Your task to perform on an android device: turn off location Image 0: 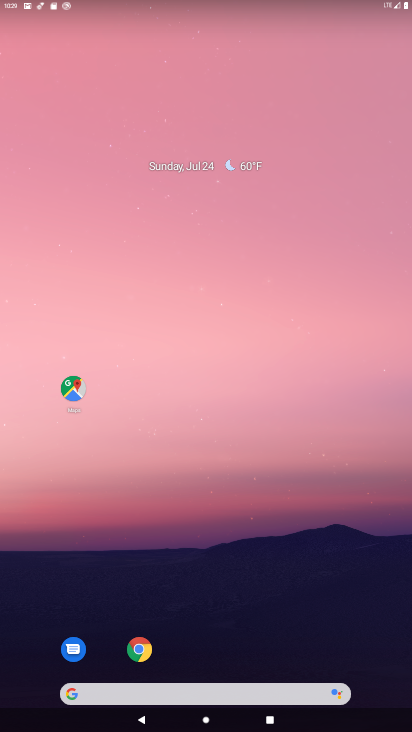
Step 0: drag from (213, 653) to (159, 84)
Your task to perform on an android device: turn off location Image 1: 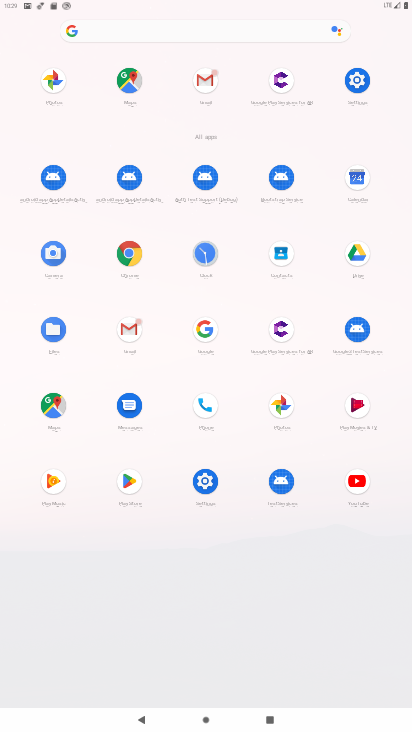
Step 1: click (364, 85)
Your task to perform on an android device: turn off location Image 2: 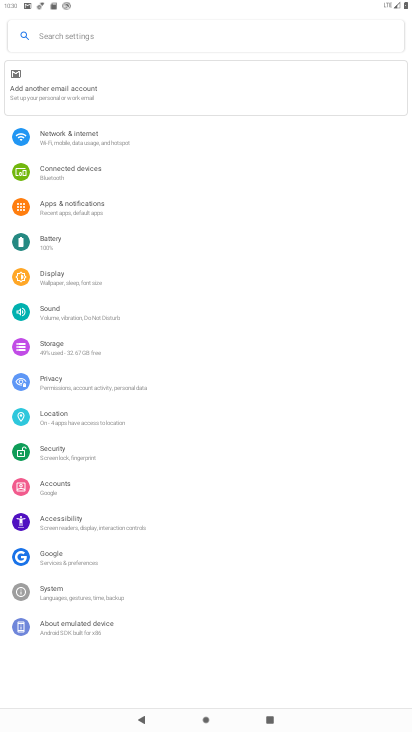
Step 2: click (87, 425)
Your task to perform on an android device: turn off location Image 3: 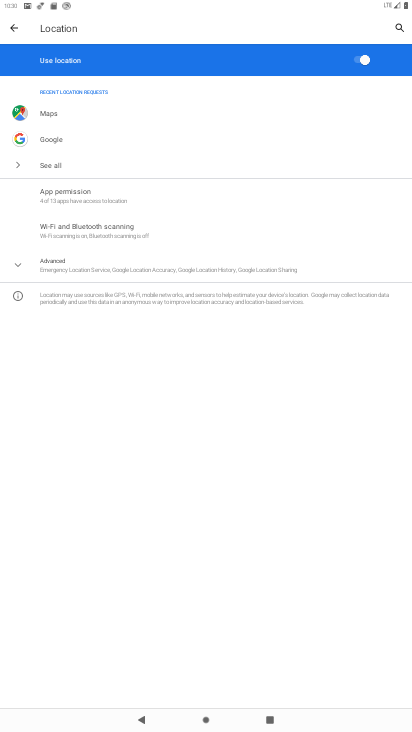
Step 3: click (365, 64)
Your task to perform on an android device: turn off location Image 4: 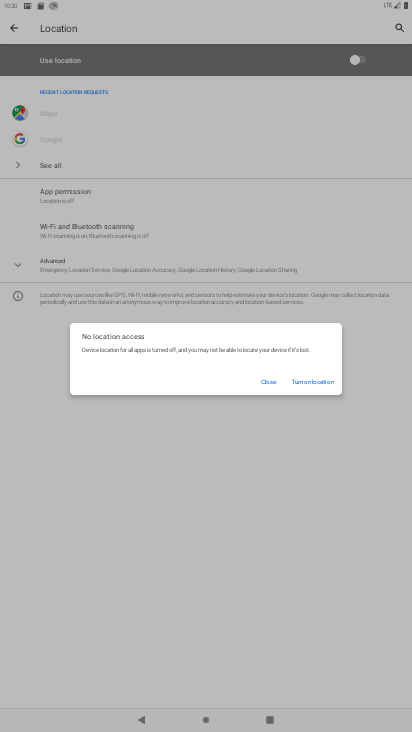
Step 4: task complete